Your task to perform on an android device: make emails show in primary in the gmail app Image 0: 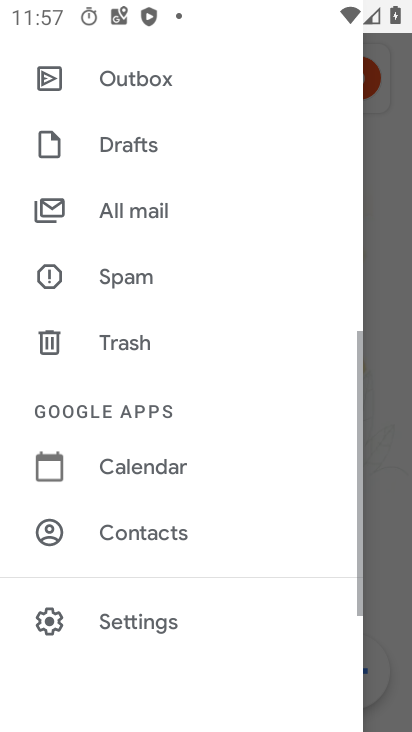
Step 0: press home button
Your task to perform on an android device: make emails show in primary in the gmail app Image 1: 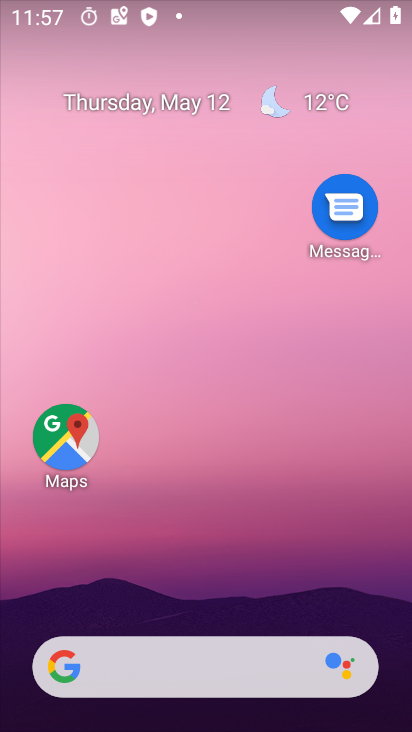
Step 1: drag from (367, 498) to (360, 2)
Your task to perform on an android device: make emails show in primary in the gmail app Image 2: 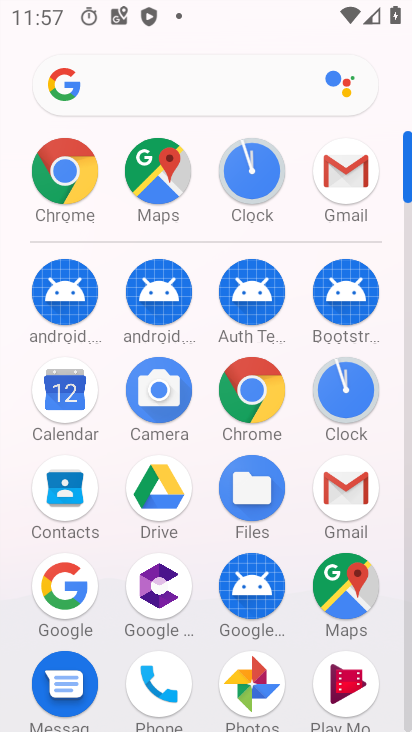
Step 2: click (349, 187)
Your task to perform on an android device: make emails show in primary in the gmail app Image 3: 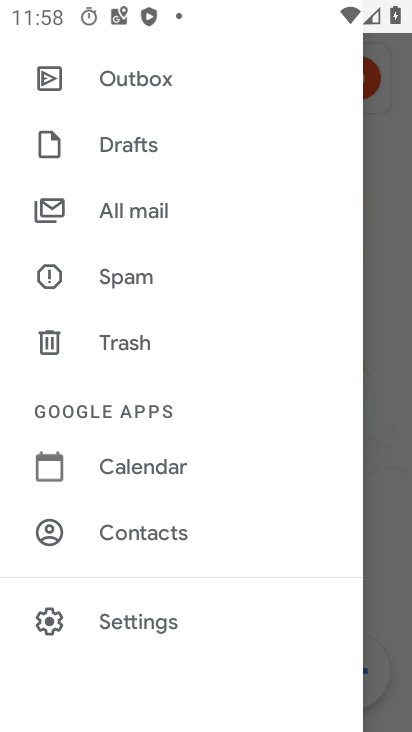
Step 3: task complete